Your task to perform on an android device: open app "Airtel Thanks" Image 0: 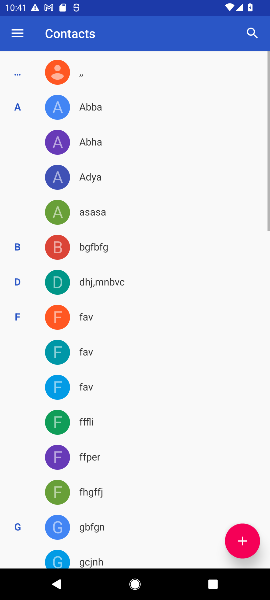
Step 0: press home button
Your task to perform on an android device: open app "Airtel Thanks" Image 1: 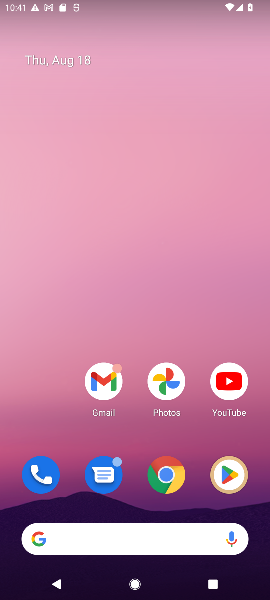
Step 1: drag from (127, 509) to (94, 18)
Your task to perform on an android device: open app "Airtel Thanks" Image 2: 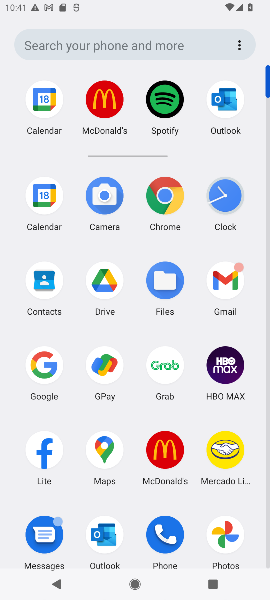
Step 2: drag from (132, 440) to (98, 95)
Your task to perform on an android device: open app "Airtel Thanks" Image 3: 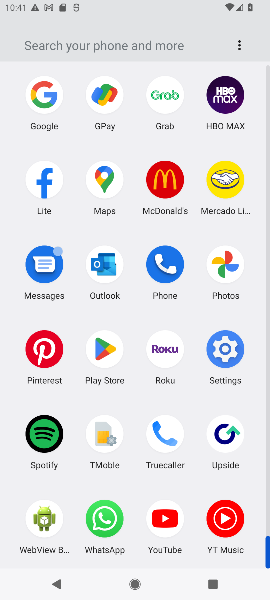
Step 3: click (104, 359)
Your task to perform on an android device: open app "Airtel Thanks" Image 4: 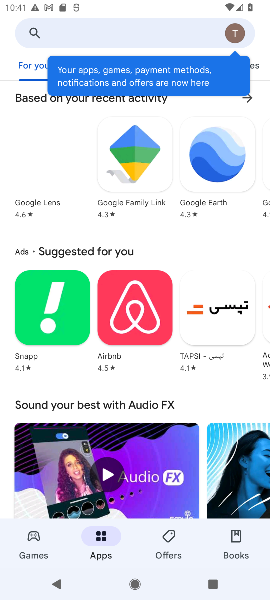
Step 4: click (112, 37)
Your task to perform on an android device: open app "Airtel Thanks" Image 5: 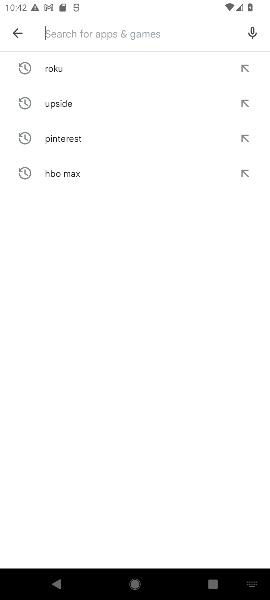
Step 5: type "Airtel Thanks"
Your task to perform on an android device: open app "Airtel Thanks" Image 6: 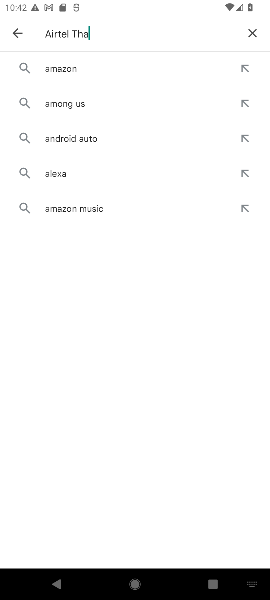
Step 6: type ""
Your task to perform on an android device: open app "Airtel Thanks" Image 7: 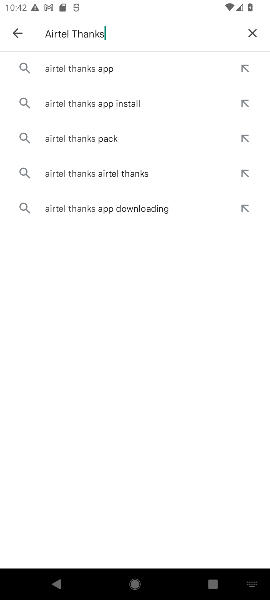
Step 7: click (51, 64)
Your task to perform on an android device: open app "Airtel Thanks" Image 8: 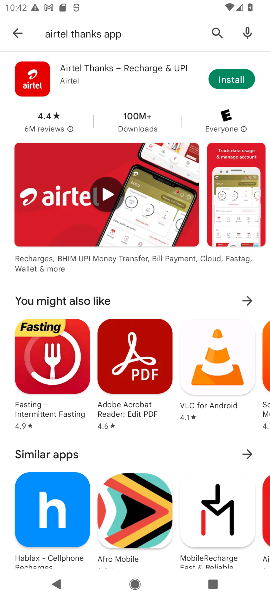
Step 8: task complete